Your task to perform on an android device: Open Youtube and go to the subscriptions tab Image 0: 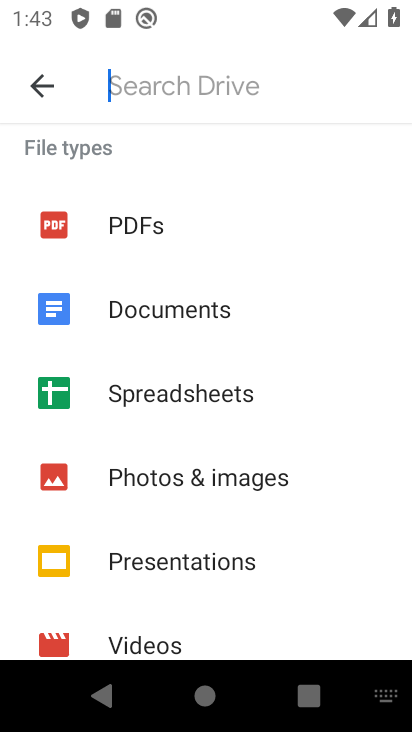
Step 0: press home button
Your task to perform on an android device: Open Youtube and go to the subscriptions tab Image 1: 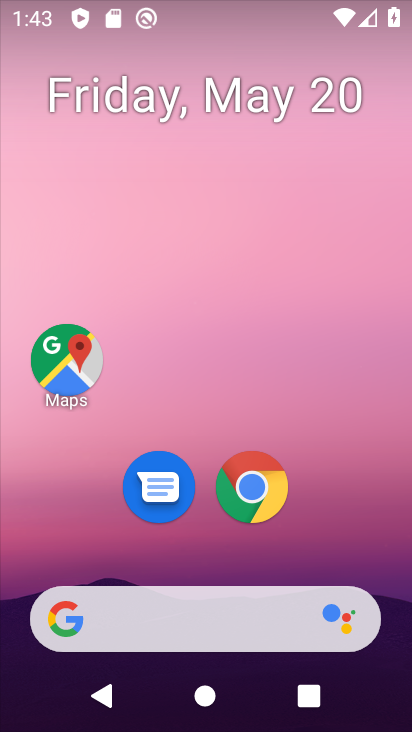
Step 1: drag from (385, 549) to (365, 108)
Your task to perform on an android device: Open Youtube and go to the subscriptions tab Image 2: 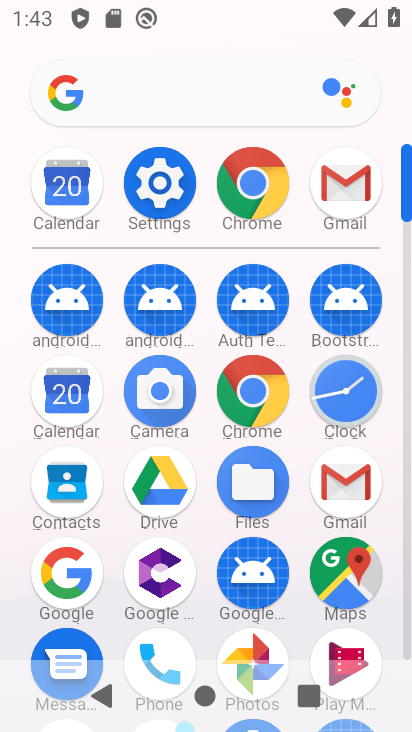
Step 2: drag from (403, 483) to (397, 96)
Your task to perform on an android device: Open Youtube and go to the subscriptions tab Image 3: 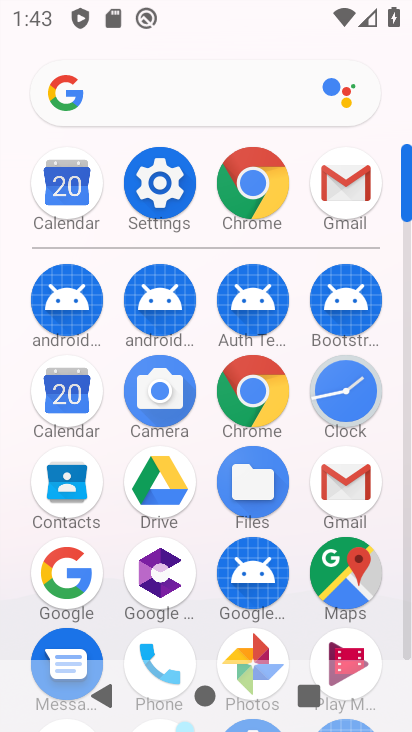
Step 3: drag from (407, 564) to (394, 232)
Your task to perform on an android device: Open Youtube and go to the subscriptions tab Image 4: 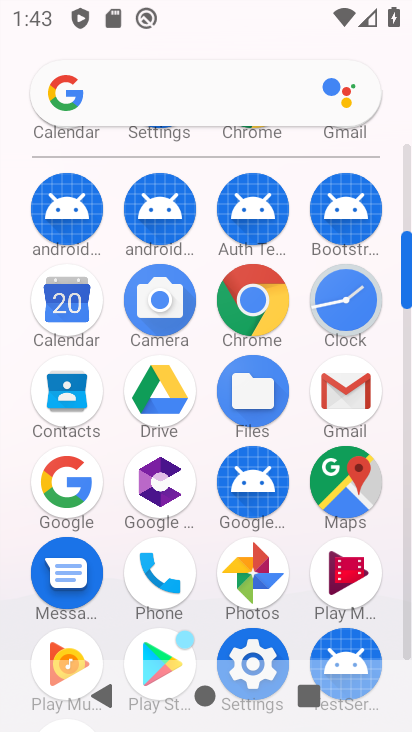
Step 4: drag from (104, 595) to (114, 362)
Your task to perform on an android device: Open Youtube and go to the subscriptions tab Image 5: 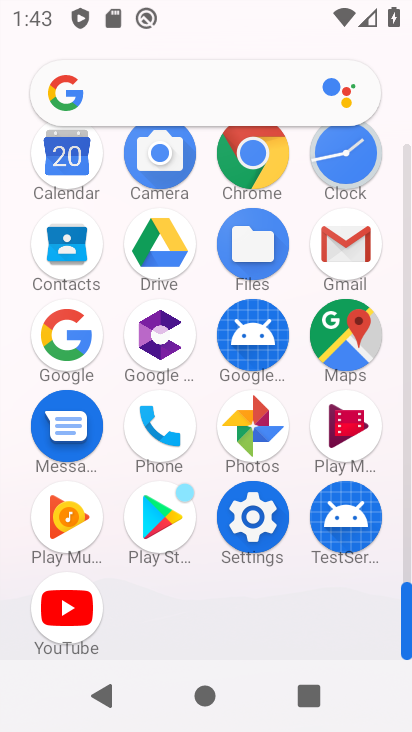
Step 5: click (78, 607)
Your task to perform on an android device: Open Youtube and go to the subscriptions tab Image 6: 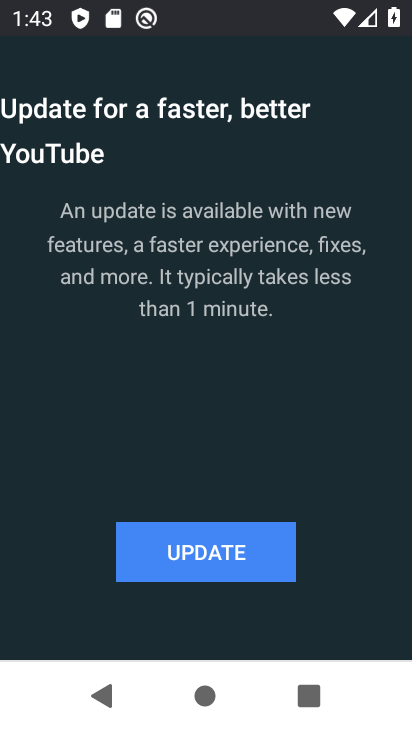
Step 6: click (192, 564)
Your task to perform on an android device: Open Youtube and go to the subscriptions tab Image 7: 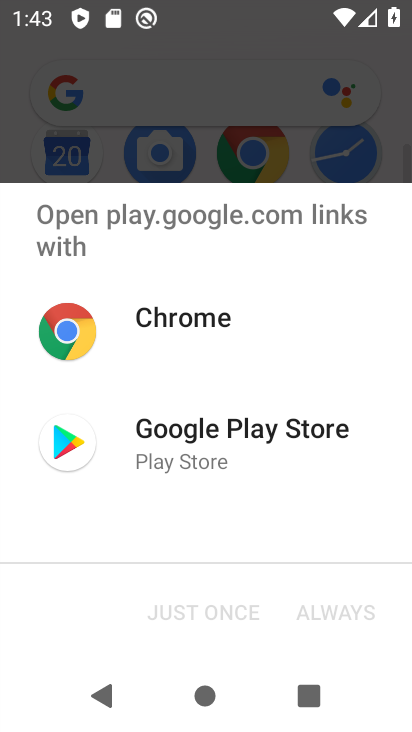
Step 7: click (147, 484)
Your task to perform on an android device: Open Youtube and go to the subscriptions tab Image 8: 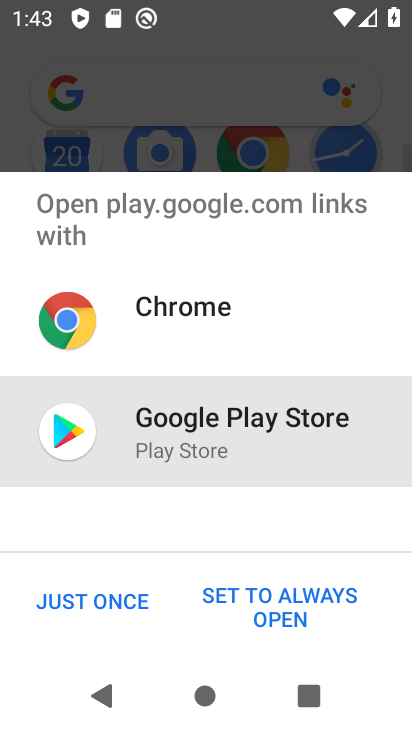
Step 8: click (136, 597)
Your task to perform on an android device: Open Youtube and go to the subscriptions tab Image 9: 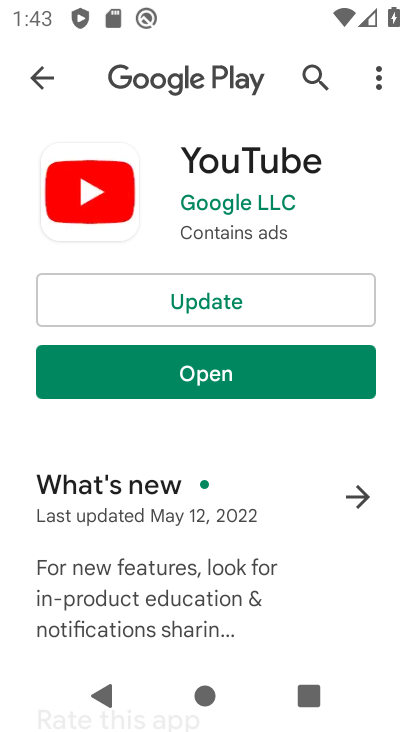
Step 9: click (208, 310)
Your task to perform on an android device: Open Youtube and go to the subscriptions tab Image 10: 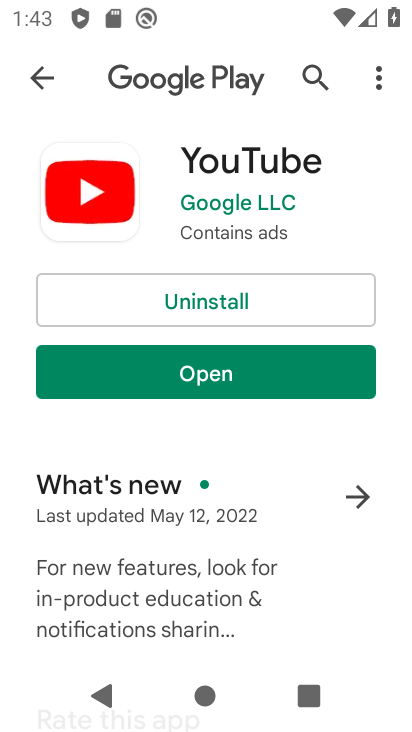
Step 10: click (286, 378)
Your task to perform on an android device: Open Youtube and go to the subscriptions tab Image 11: 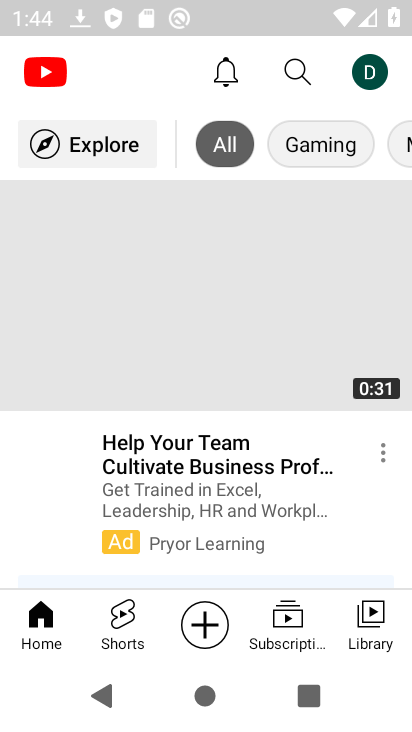
Step 11: click (296, 633)
Your task to perform on an android device: Open Youtube and go to the subscriptions tab Image 12: 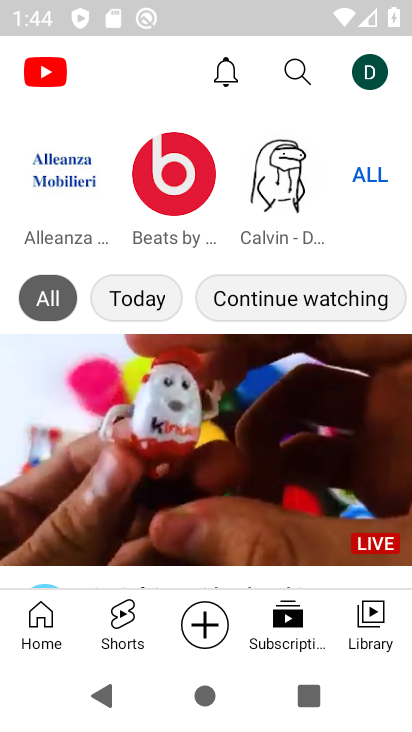
Step 12: task complete